Your task to perform on an android device: Search for seafood restaurants on Google Maps Image 0: 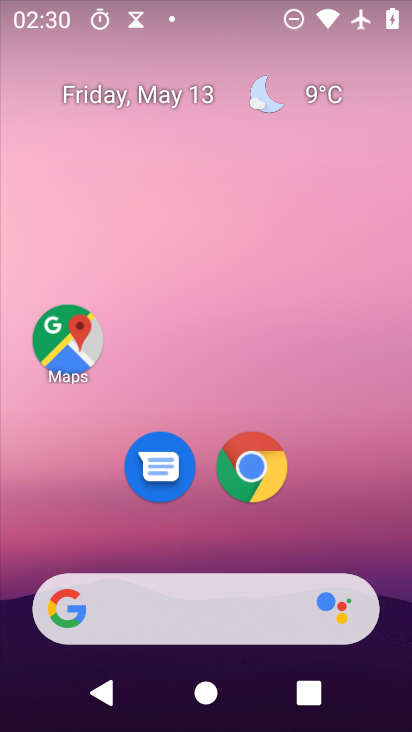
Step 0: click (61, 329)
Your task to perform on an android device: Search for seafood restaurants on Google Maps Image 1: 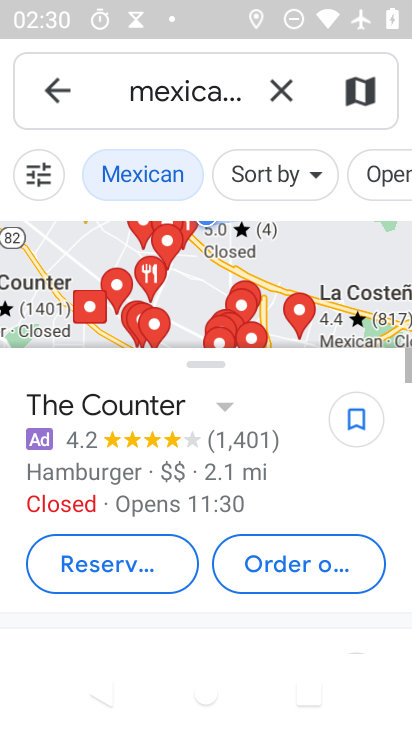
Step 1: click (272, 94)
Your task to perform on an android device: Search for seafood restaurants on Google Maps Image 2: 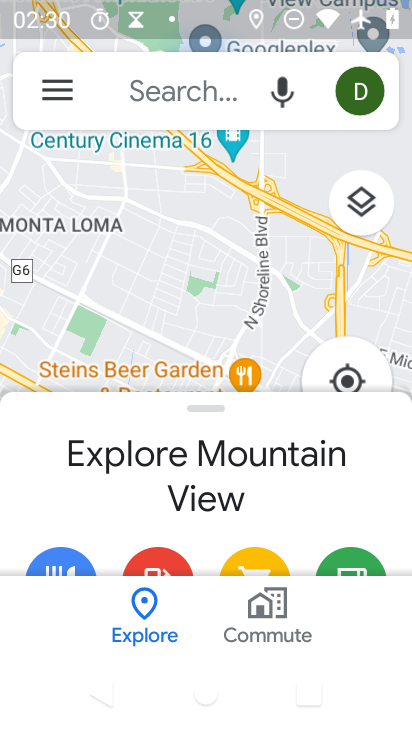
Step 2: click (194, 86)
Your task to perform on an android device: Search for seafood restaurants on Google Maps Image 3: 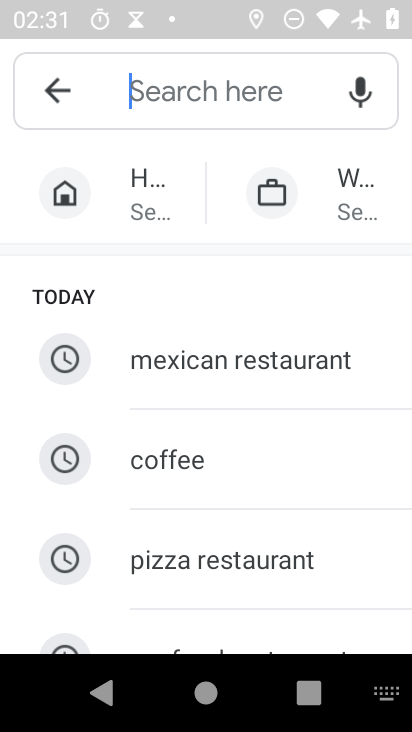
Step 3: drag from (285, 482) to (245, 191)
Your task to perform on an android device: Search for seafood restaurants on Google Maps Image 4: 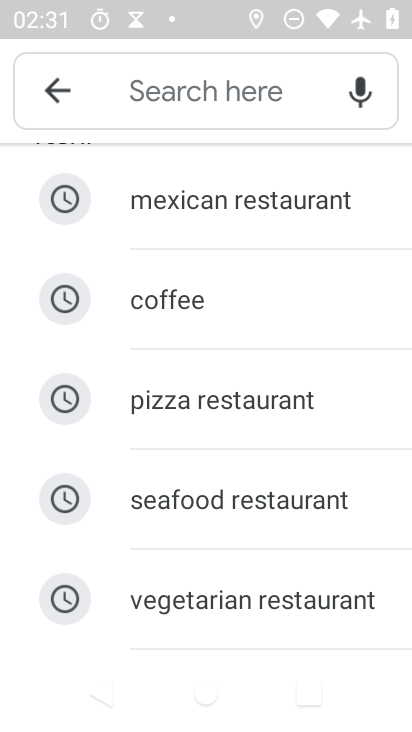
Step 4: click (258, 498)
Your task to perform on an android device: Search for seafood restaurants on Google Maps Image 5: 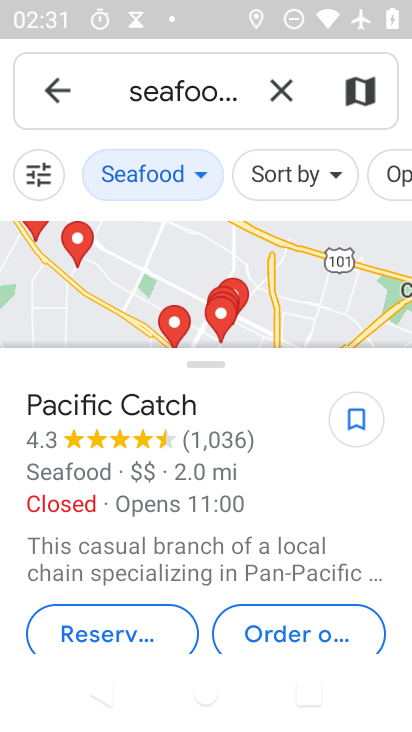
Step 5: task complete